Your task to perform on an android device: move an email to a new category in the gmail app Image 0: 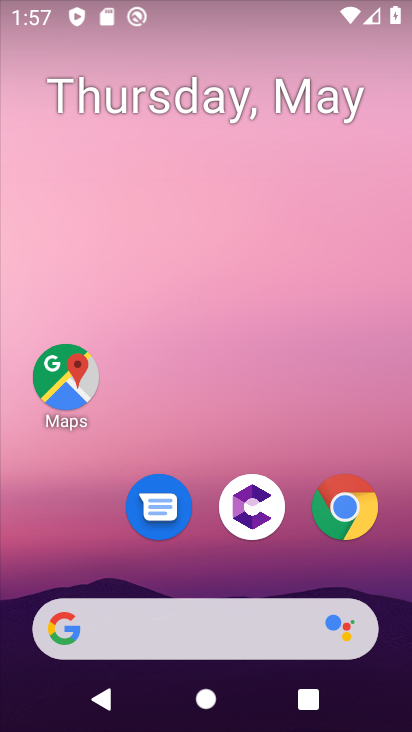
Step 0: drag from (268, 424) to (278, 76)
Your task to perform on an android device: move an email to a new category in the gmail app Image 1: 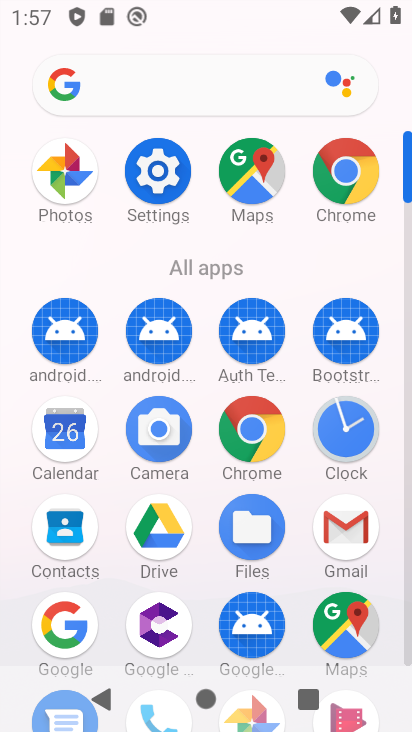
Step 1: click (332, 540)
Your task to perform on an android device: move an email to a new category in the gmail app Image 2: 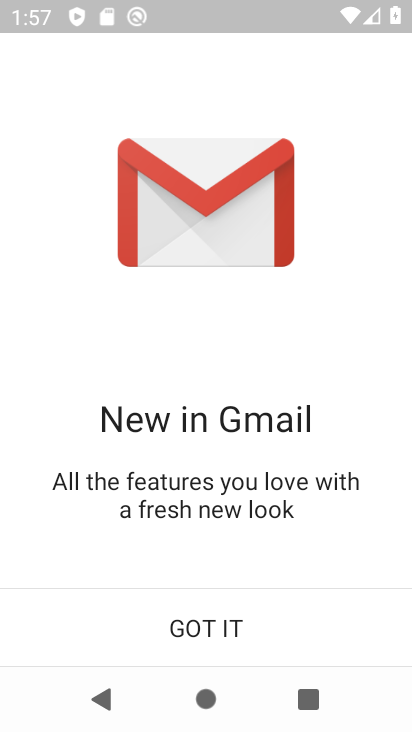
Step 2: click (212, 629)
Your task to perform on an android device: move an email to a new category in the gmail app Image 3: 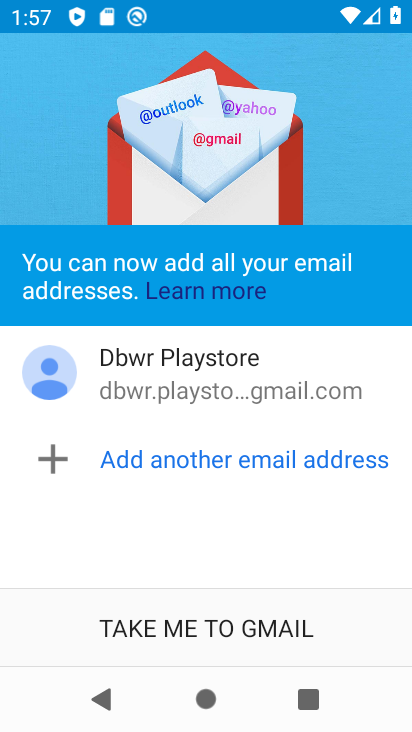
Step 3: click (223, 615)
Your task to perform on an android device: move an email to a new category in the gmail app Image 4: 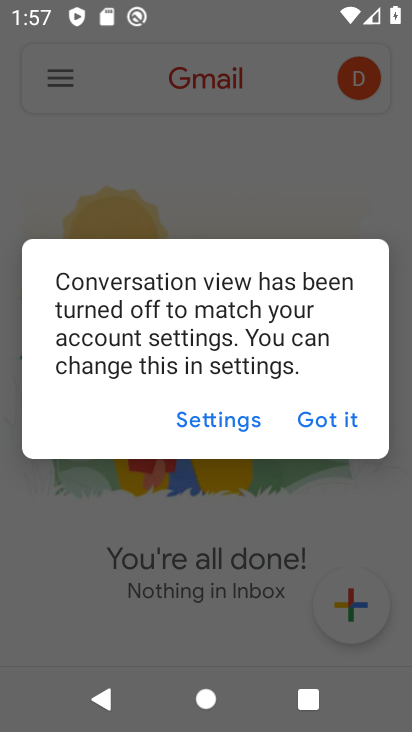
Step 4: click (313, 419)
Your task to perform on an android device: move an email to a new category in the gmail app Image 5: 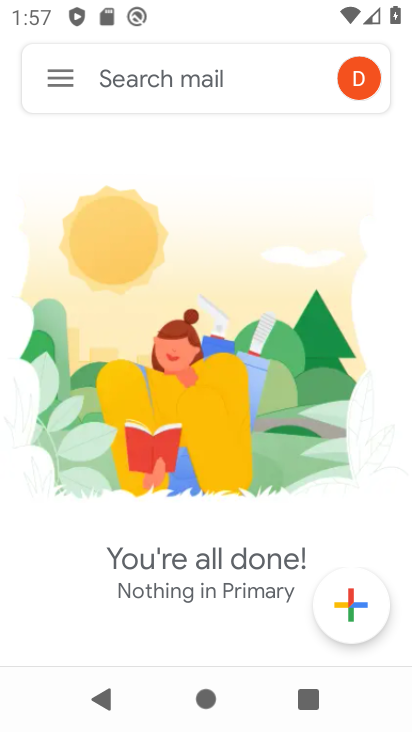
Step 5: click (65, 82)
Your task to perform on an android device: move an email to a new category in the gmail app Image 6: 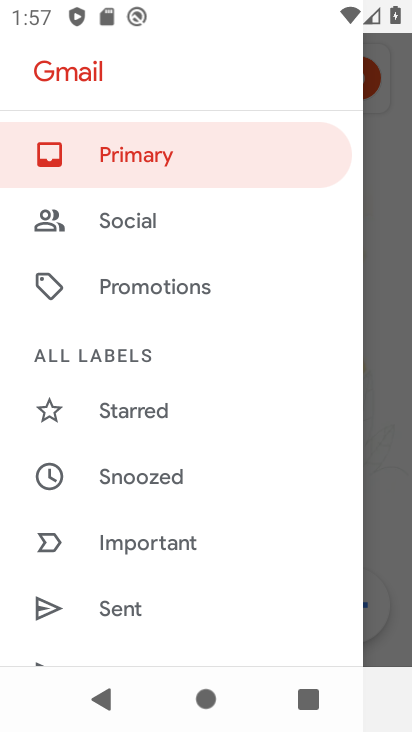
Step 6: click (66, 81)
Your task to perform on an android device: move an email to a new category in the gmail app Image 7: 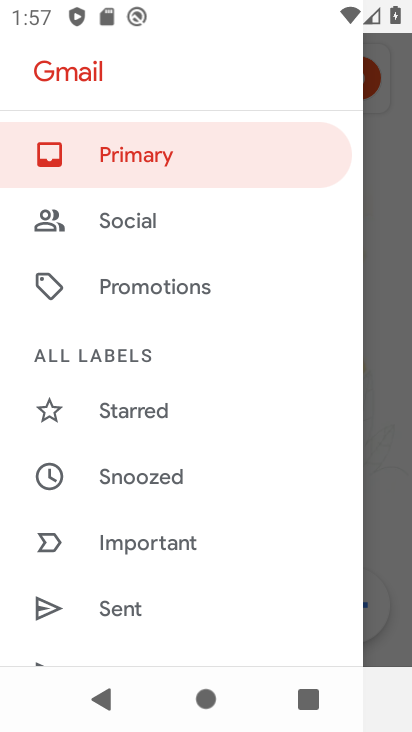
Step 7: task complete